Your task to perform on an android device: move an email to a new category in the gmail app Image 0: 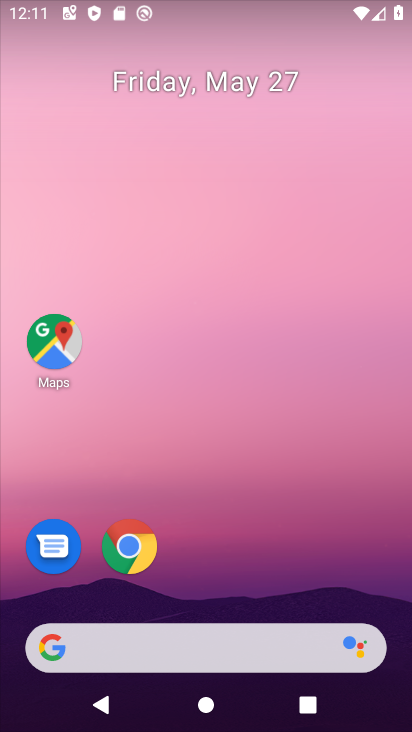
Step 0: drag from (253, 546) to (189, 95)
Your task to perform on an android device: move an email to a new category in the gmail app Image 1: 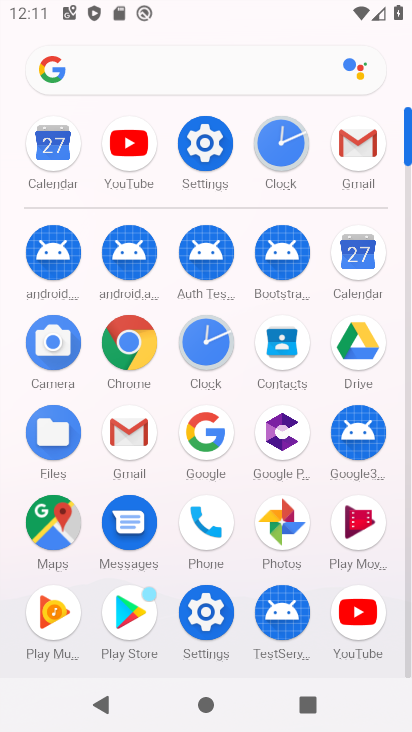
Step 1: click (130, 422)
Your task to perform on an android device: move an email to a new category in the gmail app Image 2: 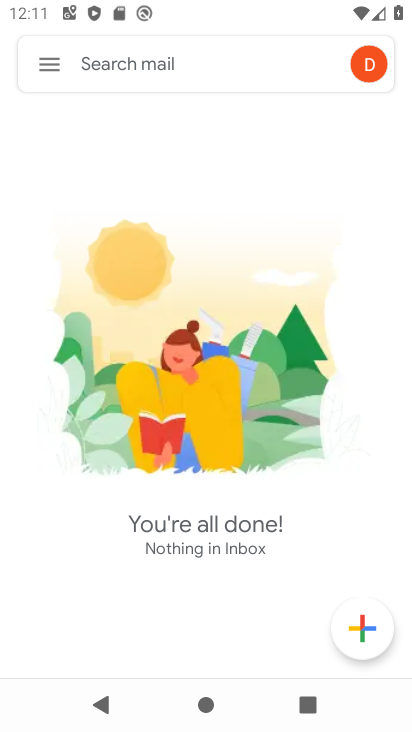
Step 2: click (50, 64)
Your task to perform on an android device: move an email to a new category in the gmail app Image 3: 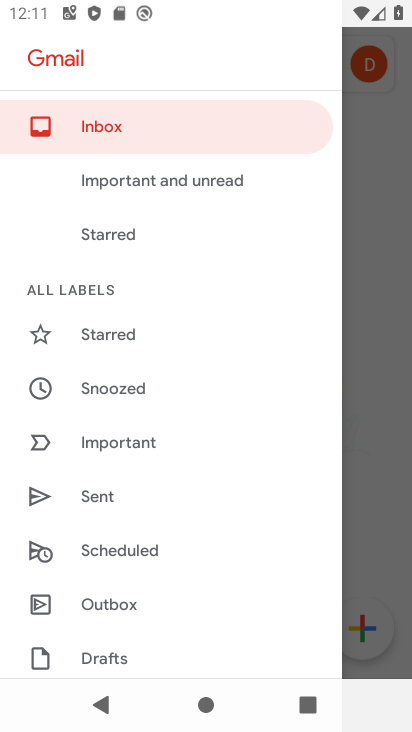
Step 3: drag from (132, 617) to (97, 260)
Your task to perform on an android device: move an email to a new category in the gmail app Image 4: 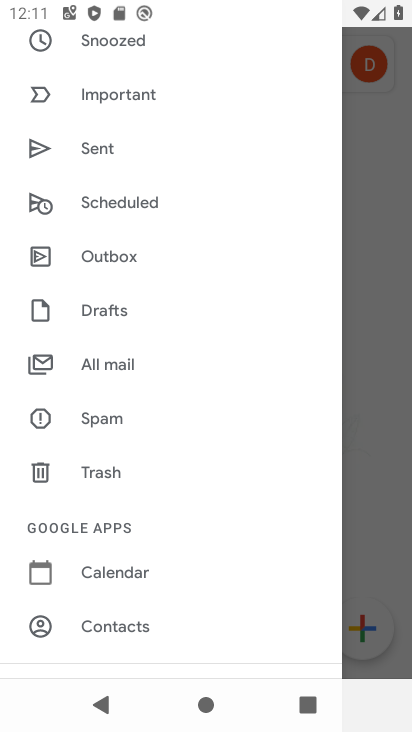
Step 4: click (108, 361)
Your task to perform on an android device: move an email to a new category in the gmail app Image 5: 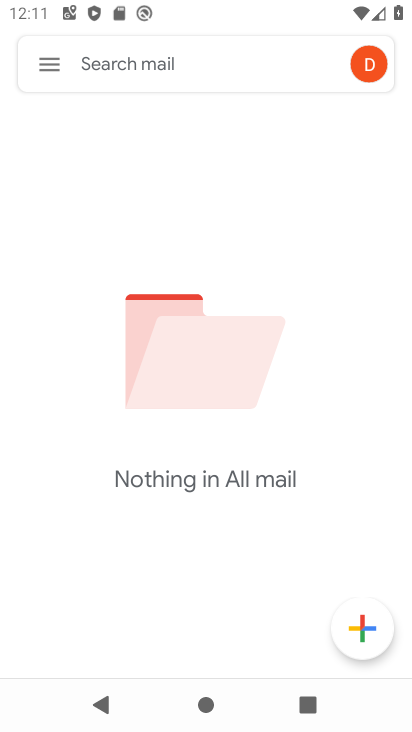
Step 5: task complete